Your task to perform on an android device: toggle notifications settings in the gmail app Image 0: 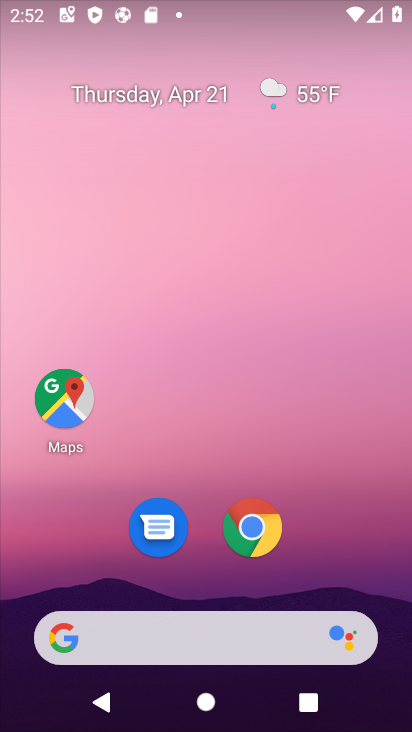
Step 0: drag from (359, 590) to (229, 165)
Your task to perform on an android device: toggle notifications settings in the gmail app Image 1: 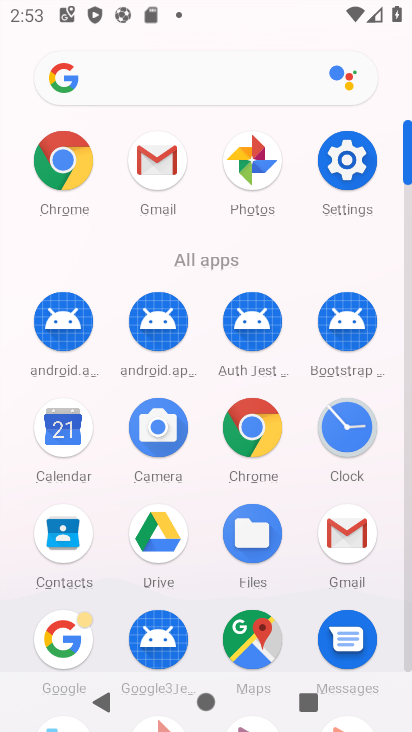
Step 1: click (159, 153)
Your task to perform on an android device: toggle notifications settings in the gmail app Image 2: 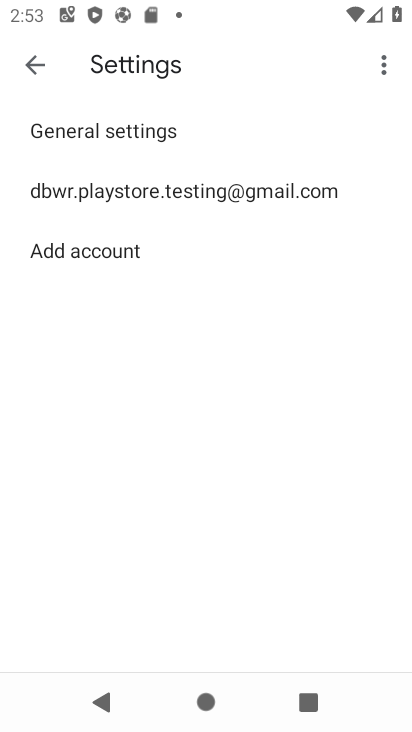
Step 2: click (194, 202)
Your task to perform on an android device: toggle notifications settings in the gmail app Image 3: 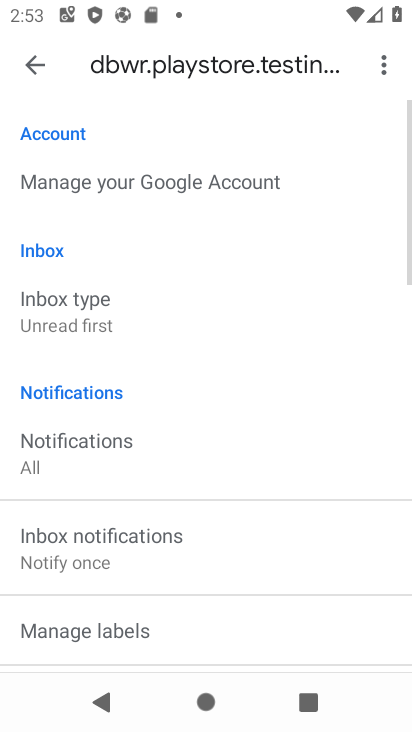
Step 3: drag from (256, 560) to (226, 238)
Your task to perform on an android device: toggle notifications settings in the gmail app Image 4: 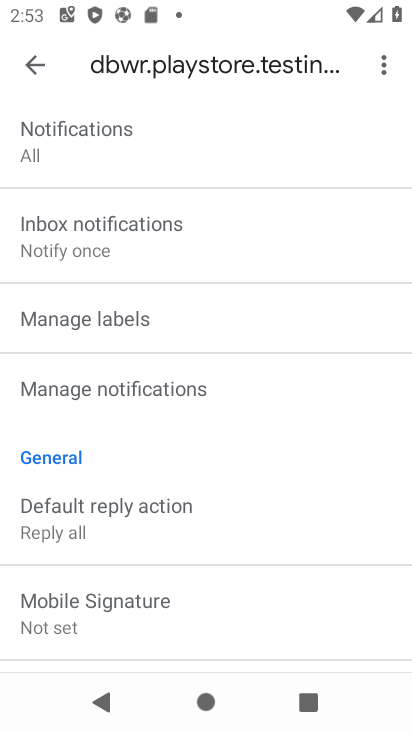
Step 4: click (243, 391)
Your task to perform on an android device: toggle notifications settings in the gmail app Image 5: 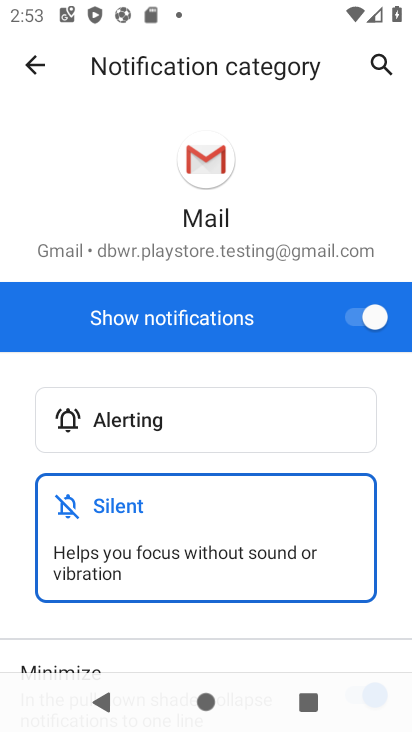
Step 5: drag from (268, 460) to (227, 71)
Your task to perform on an android device: toggle notifications settings in the gmail app Image 6: 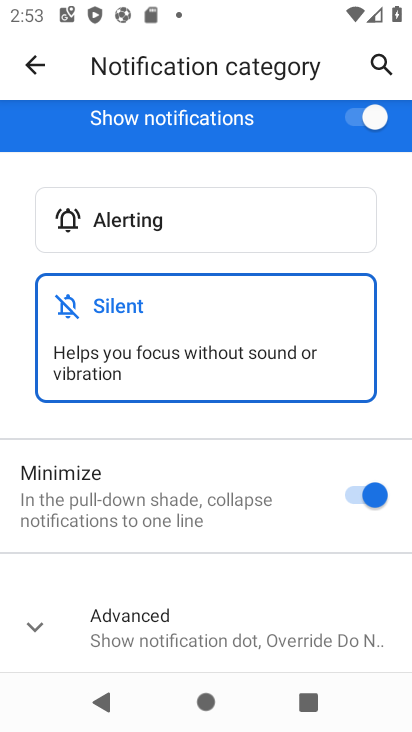
Step 6: click (312, 623)
Your task to perform on an android device: toggle notifications settings in the gmail app Image 7: 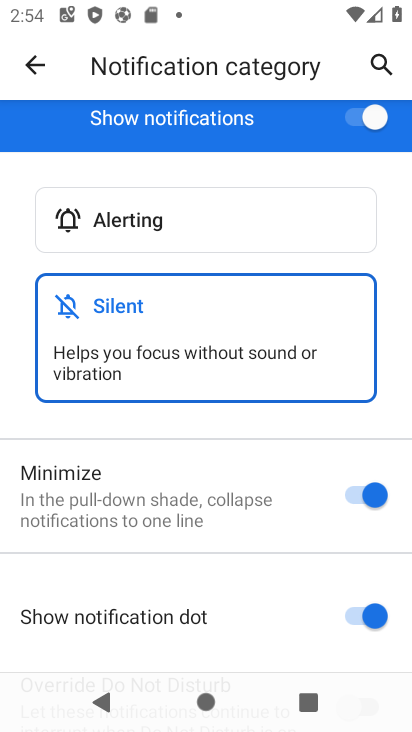
Step 7: drag from (297, 576) to (228, 202)
Your task to perform on an android device: toggle notifications settings in the gmail app Image 8: 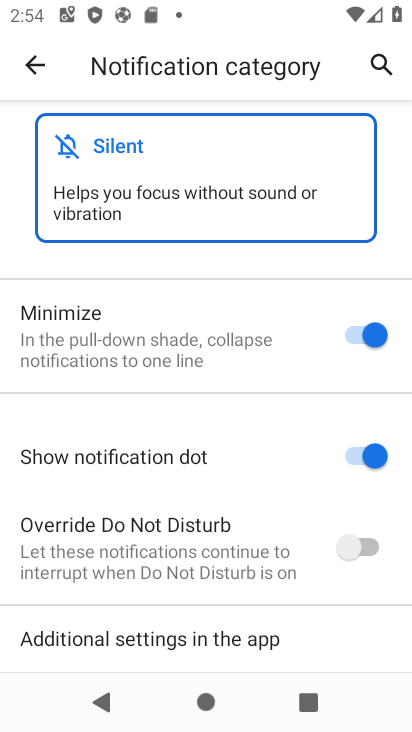
Step 8: click (349, 336)
Your task to perform on an android device: toggle notifications settings in the gmail app Image 9: 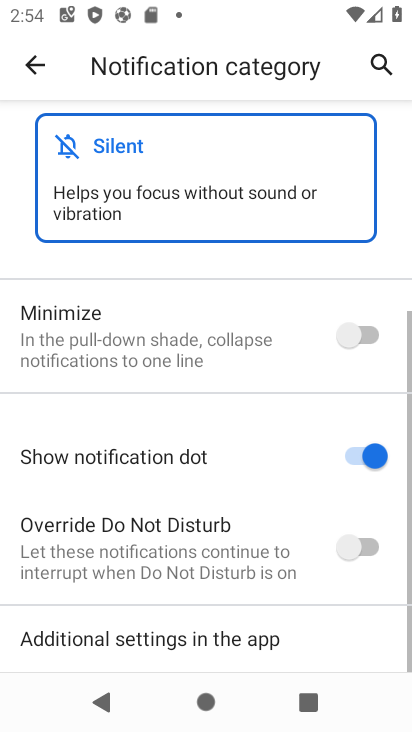
Step 9: click (364, 447)
Your task to perform on an android device: toggle notifications settings in the gmail app Image 10: 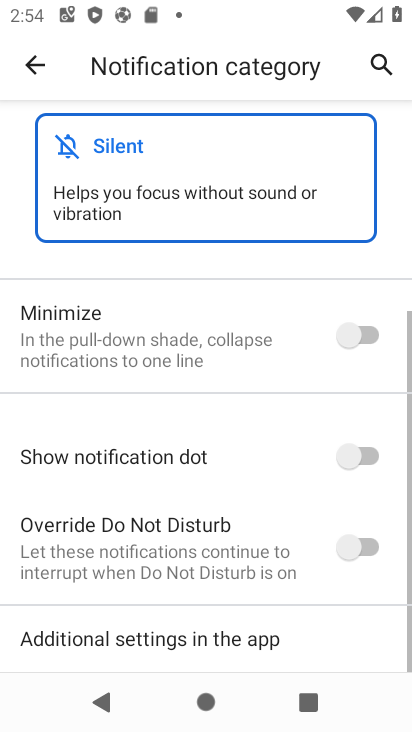
Step 10: click (360, 540)
Your task to perform on an android device: toggle notifications settings in the gmail app Image 11: 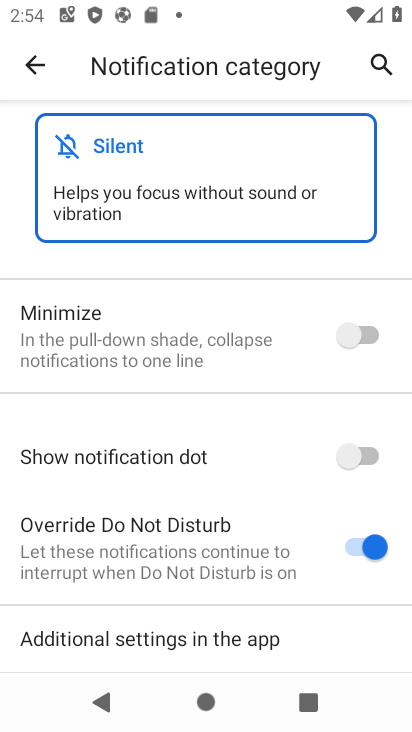
Step 11: task complete